Your task to perform on an android device: Go to wifi settings Image 0: 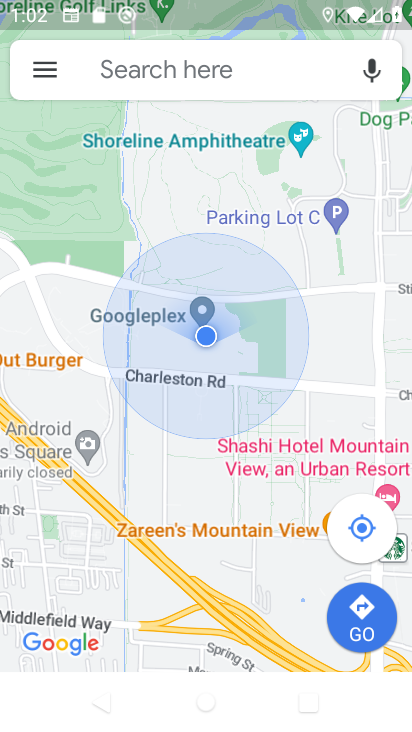
Step 0: press home button
Your task to perform on an android device: Go to wifi settings Image 1: 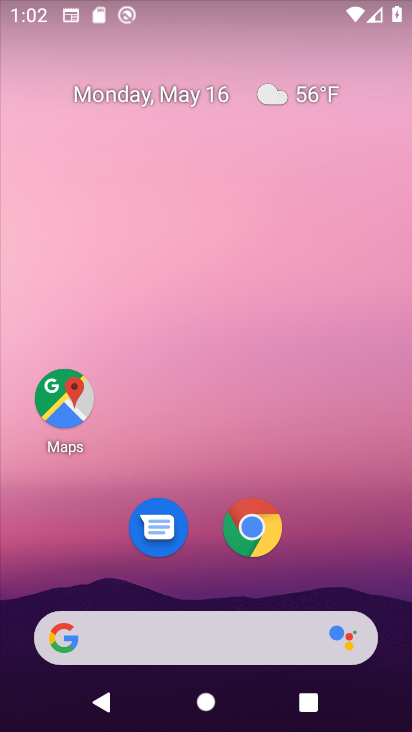
Step 1: drag from (176, 617) to (176, 12)
Your task to perform on an android device: Go to wifi settings Image 2: 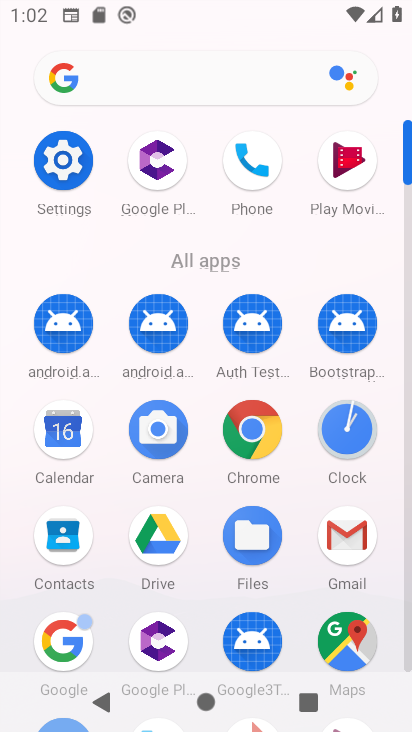
Step 2: click (61, 176)
Your task to perform on an android device: Go to wifi settings Image 3: 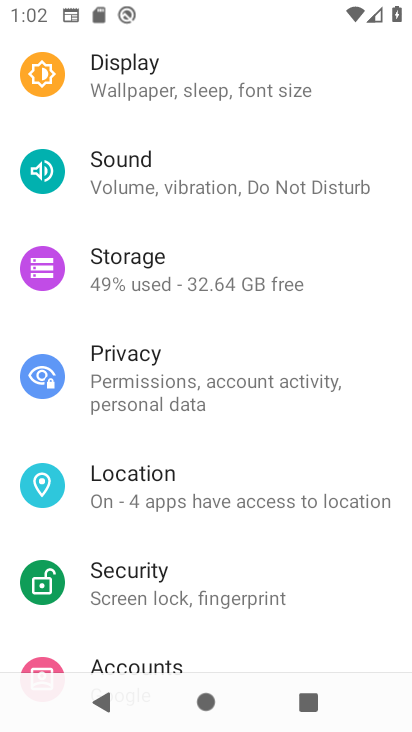
Step 3: drag from (217, 87) to (152, 640)
Your task to perform on an android device: Go to wifi settings Image 4: 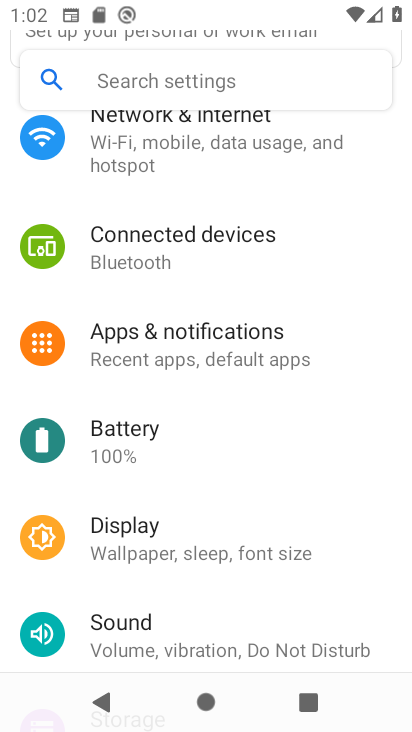
Step 4: drag from (183, 222) to (219, 690)
Your task to perform on an android device: Go to wifi settings Image 5: 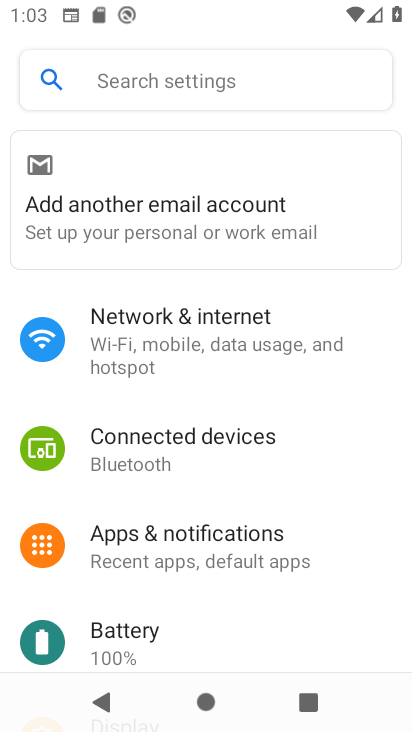
Step 5: click (150, 344)
Your task to perform on an android device: Go to wifi settings Image 6: 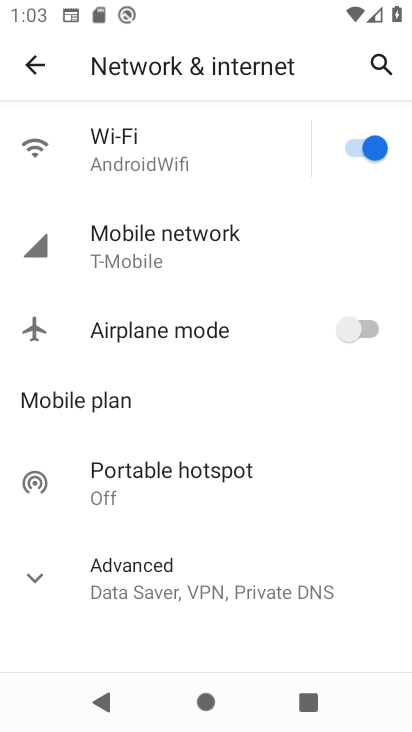
Step 6: click (109, 171)
Your task to perform on an android device: Go to wifi settings Image 7: 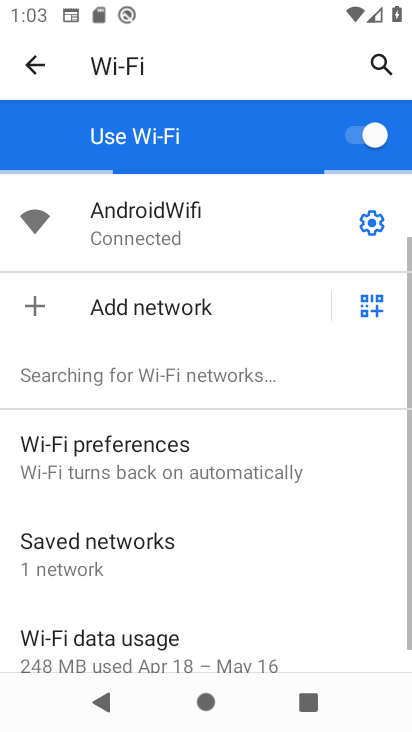
Step 7: task complete